Your task to perform on an android device: Open notification settings Image 0: 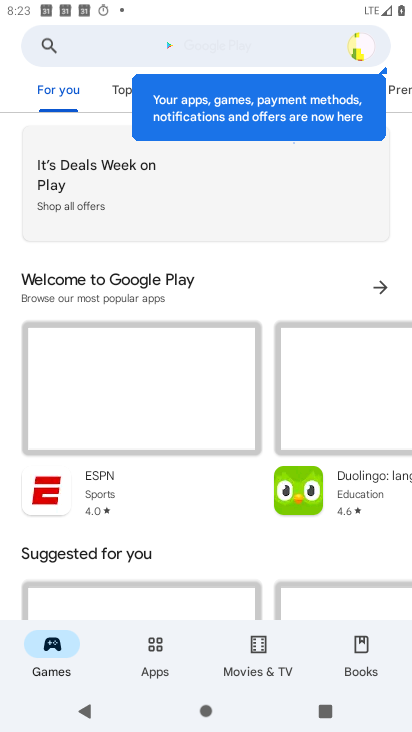
Step 0: press home button
Your task to perform on an android device: Open notification settings Image 1: 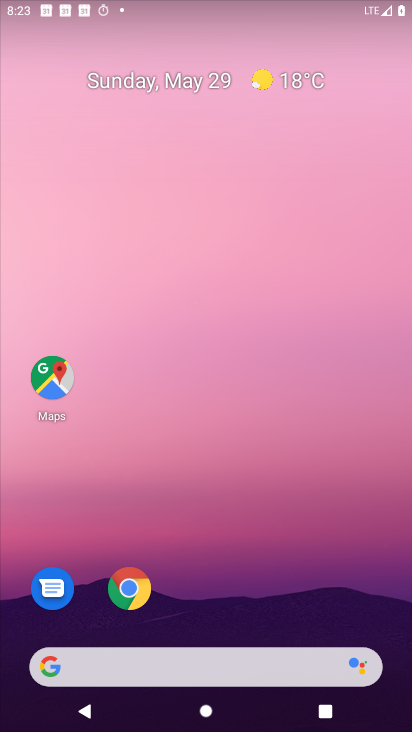
Step 1: drag from (274, 553) to (305, 124)
Your task to perform on an android device: Open notification settings Image 2: 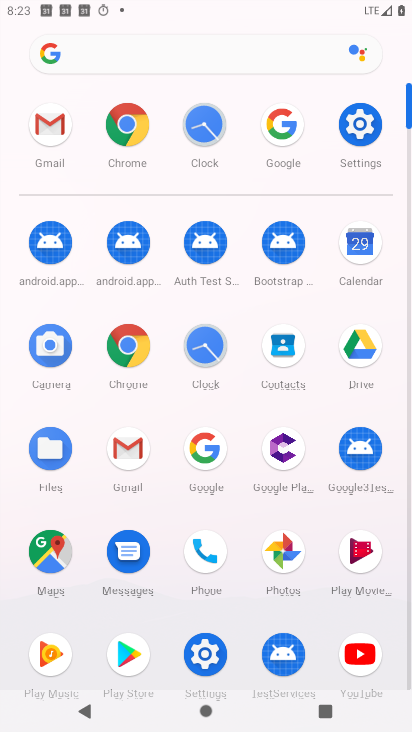
Step 2: click (368, 117)
Your task to perform on an android device: Open notification settings Image 3: 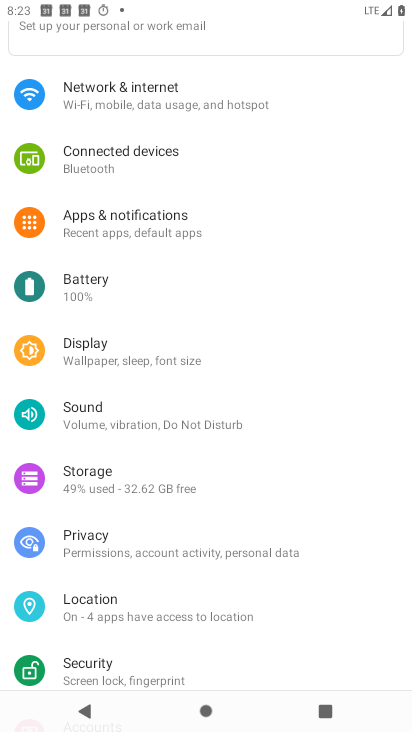
Step 3: click (141, 214)
Your task to perform on an android device: Open notification settings Image 4: 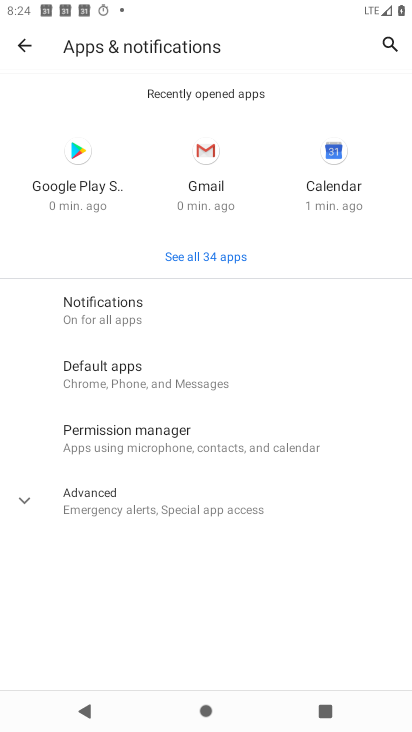
Step 4: click (119, 311)
Your task to perform on an android device: Open notification settings Image 5: 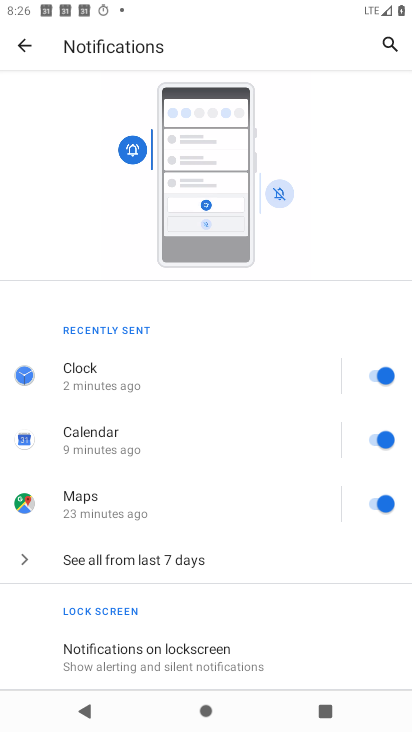
Step 5: task complete